Your task to perform on an android device: Open internet settings Image 0: 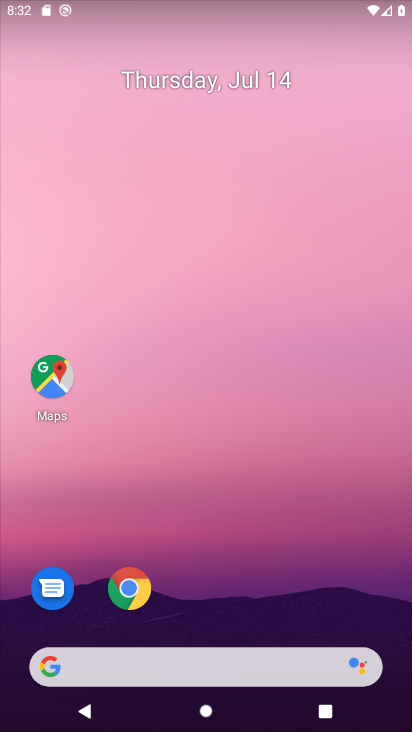
Step 0: drag from (340, 617) to (373, 91)
Your task to perform on an android device: Open internet settings Image 1: 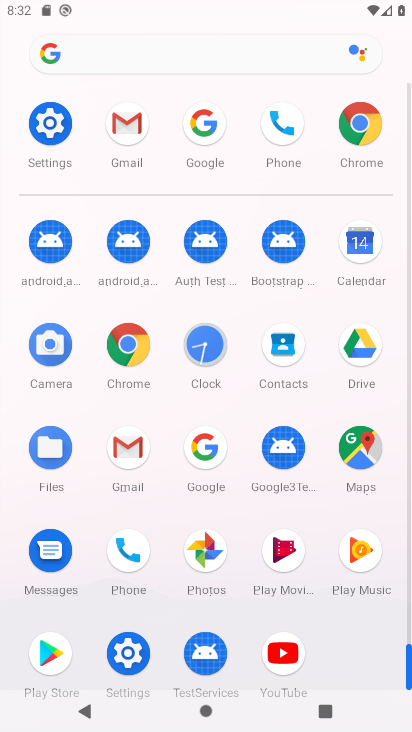
Step 1: click (401, 140)
Your task to perform on an android device: Open internet settings Image 2: 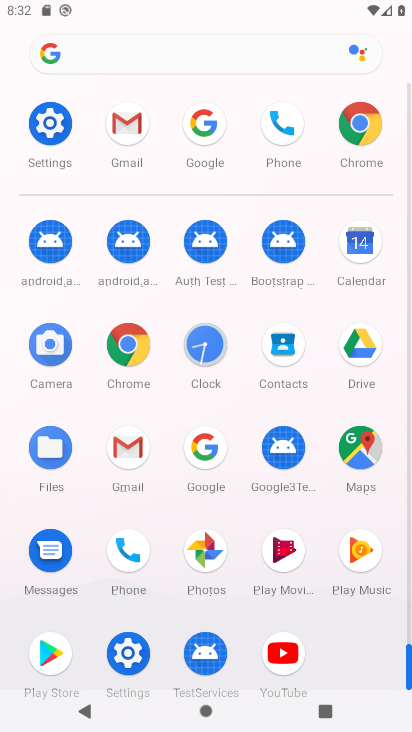
Step 2: click (55, 125)
Your task to perform on an android device: Open internet settings Image 3: 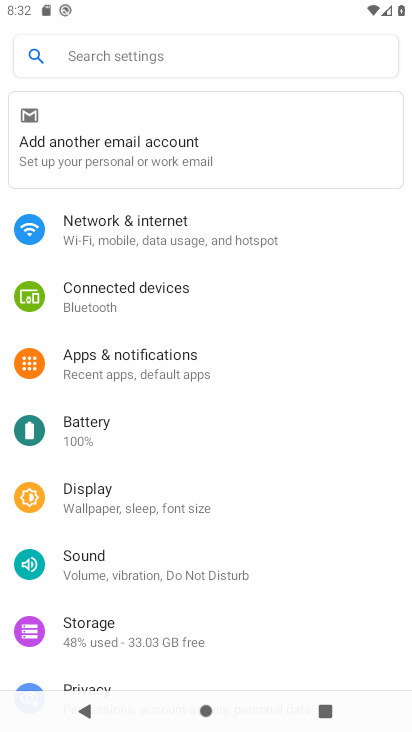
Step 3: drag from (333, 468) to (348, 344)
Your task to perform on an android device: Open internet settings Image 4: 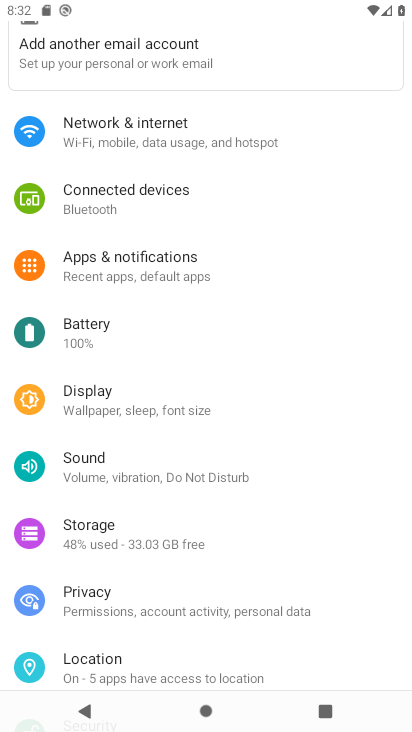
Step 4: drag from (358, 447) to (344, 324)
Your task to perform on an android device: Open internet settings Image 5: 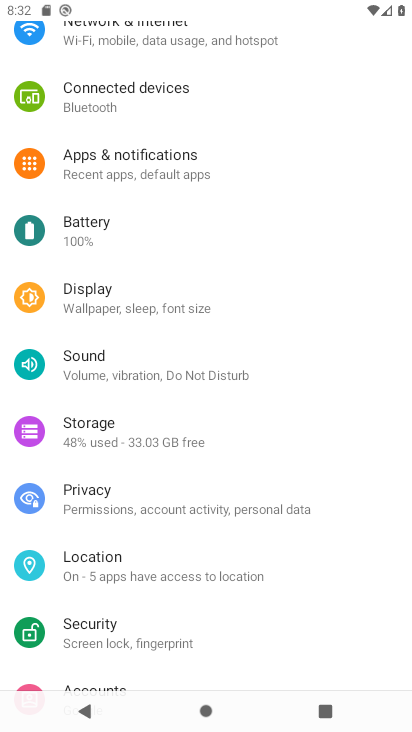
Step 5: drag from (345, 471) to (346, 368)
Your task to perform on an android device: Open internet settings Image 6: 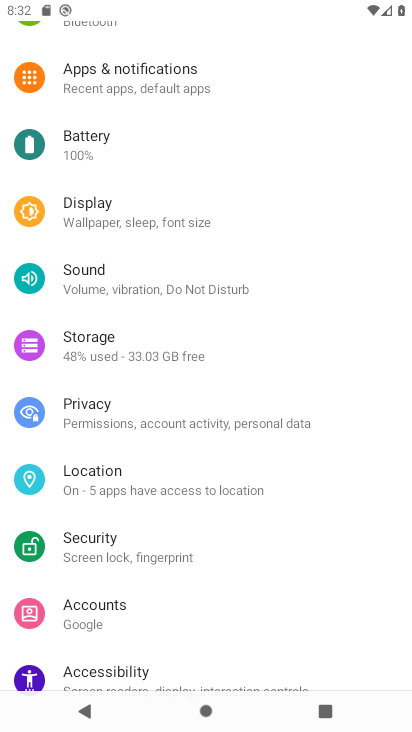
Step 6: drag from (343, 449) to (340, 355)
Your task to perform on an android device: Open internet settings Image 7: 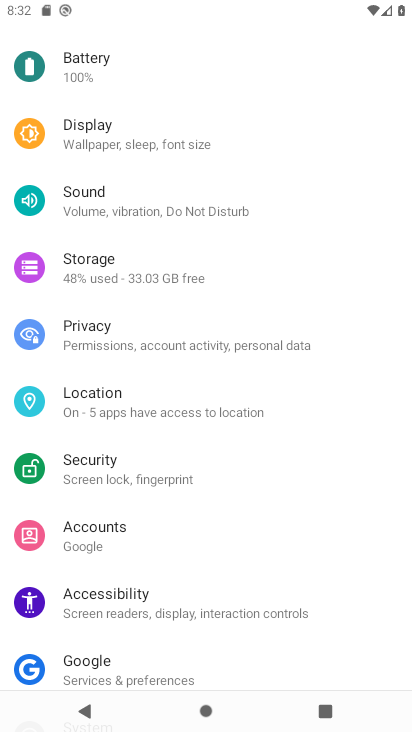
Step 7: drag from (364, 456) to (361, 377)
Your task to perform on an android device: Open internet settings Image 8: 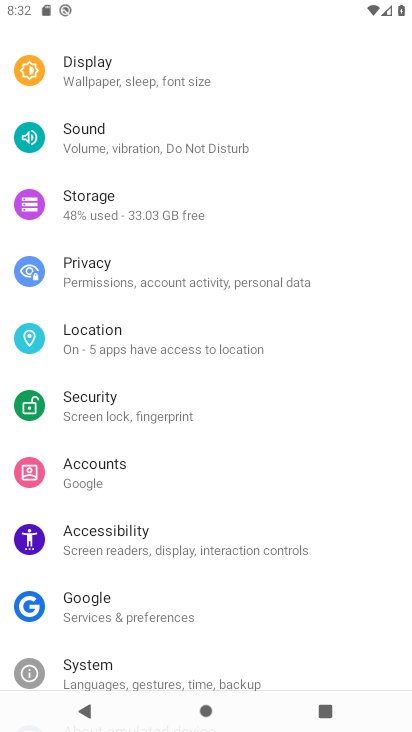
Step 8: drag from (349, 452) to (344, 293)
Your task to perform on an android device: Open internet settings Image 9: 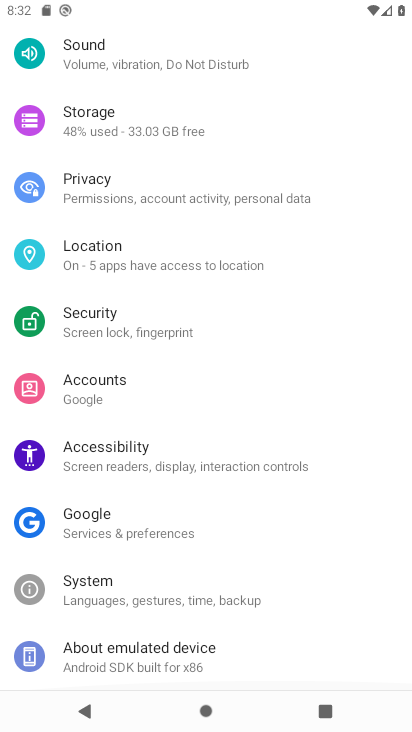
Step 9: drag from (345, 257) to (346, 359)
Your task to perform on an android device: Open internet settings Image 10: 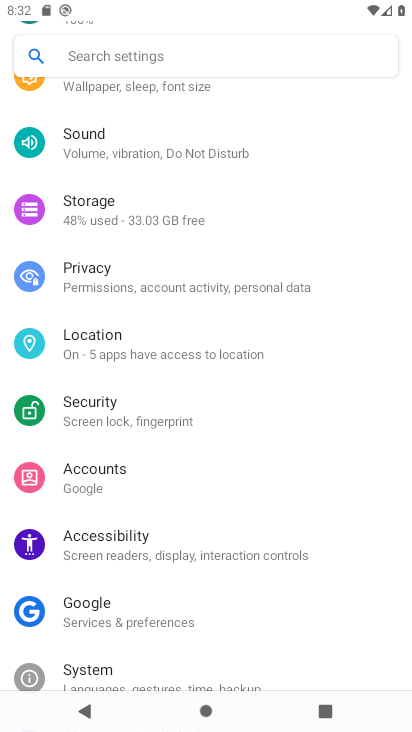
Step 10: drag from (344, 284) to (348, 381)
Your task to perform on an android device: Open internet settings Image 11: 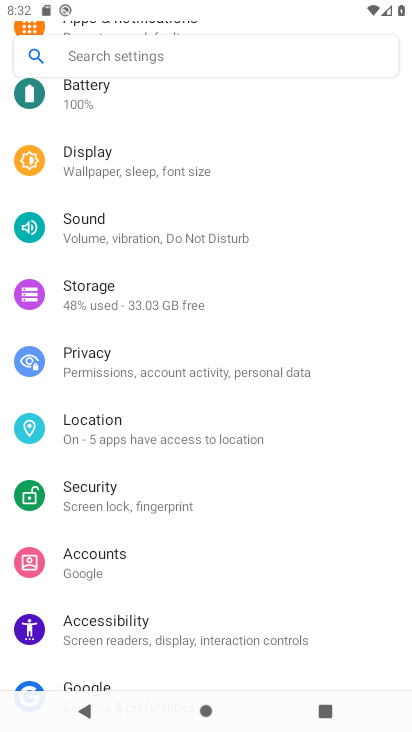
Step 11: drag from (348, 296) to (358, 391)
Your task to perform on an android device: Open internet settings Image 12: 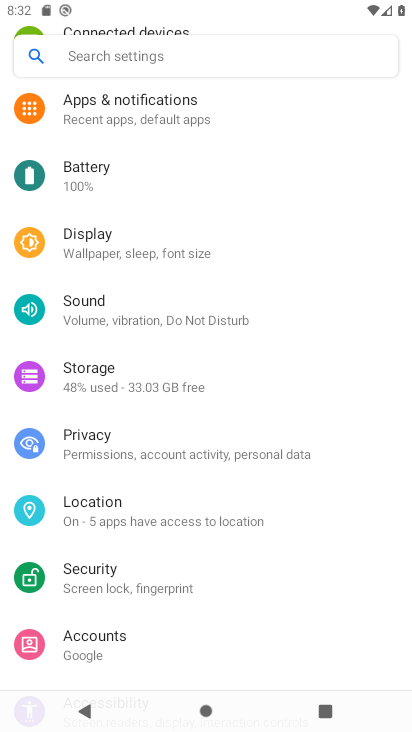
Step 12: drag from (350, 280) to (360, 379)
Your task to perform on an android device: Open internet settings Image 13: 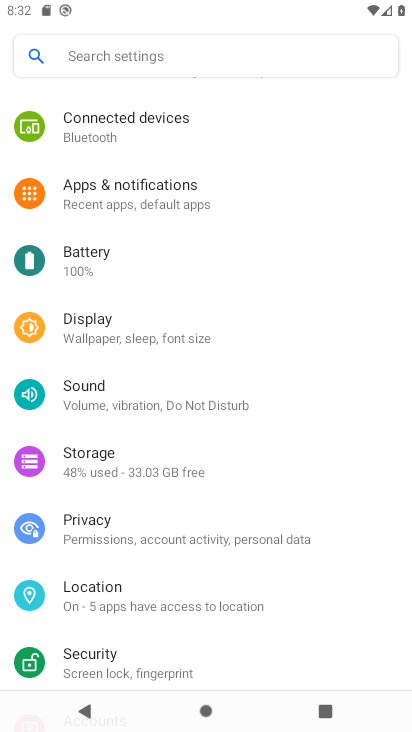
Step 13: drag from (352, 285) to (355, 412)
Your task to perform on an android device: Open internet settings Image 14: 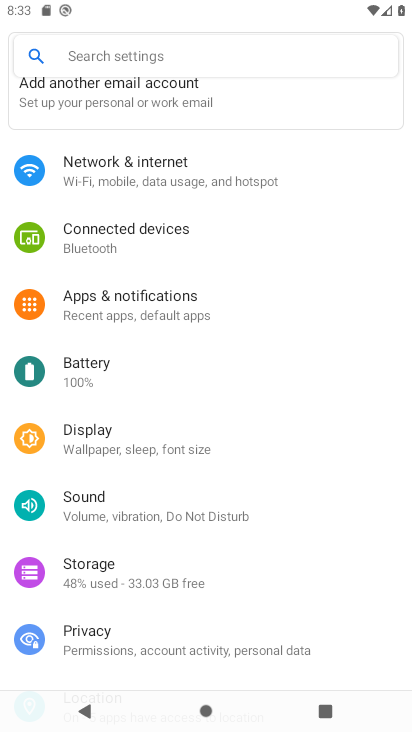
Step 14: drag from (352, 266) to (354, 345)
Your task to perform on an android device: Open internet settings Image 15: 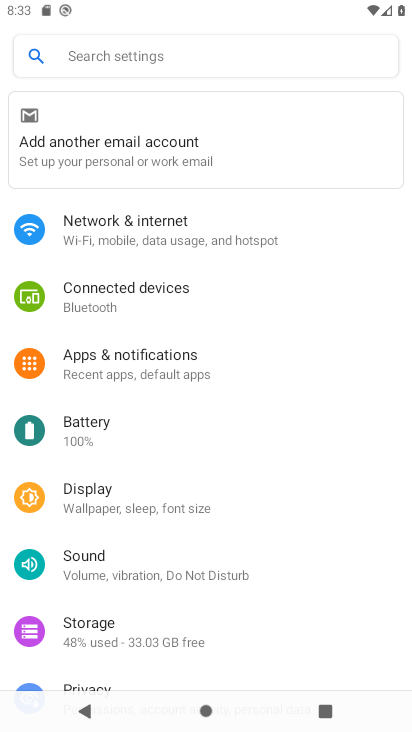
Step 15: drag from (335, 249) to (338, 337)
Your task to perform on an android device: Open internet settings Image 16: 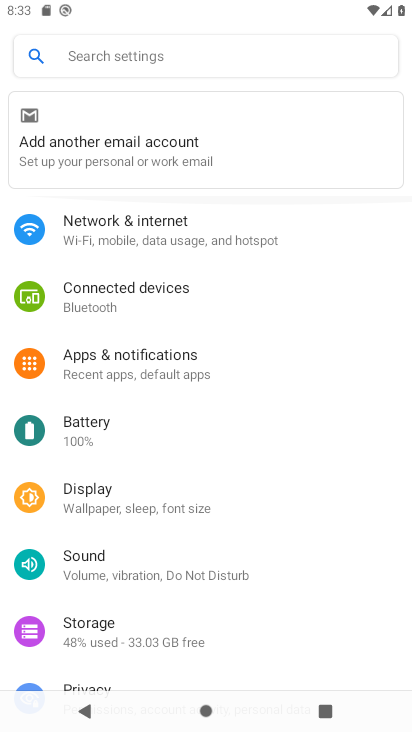
Step 16: click (289, 230)
Your task to perform on an android device: Open internet settings Image 17: 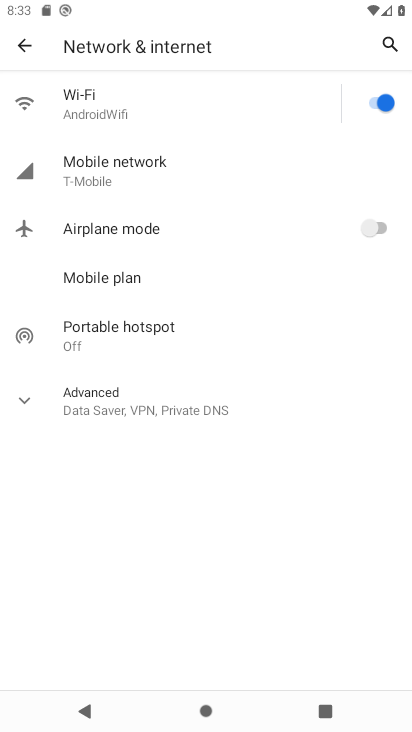
Step 17: task complete